Your task to perform on an android device: Open notification settings Image 0: 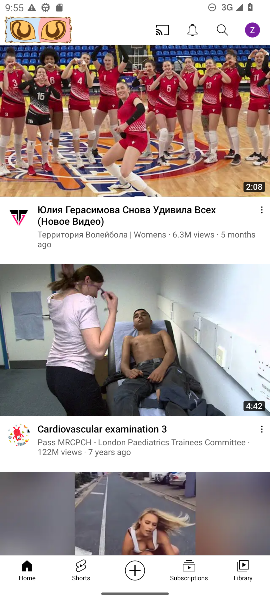
Step 0: press home button
Your task to perform on an android device: Open notification settings Image 1: 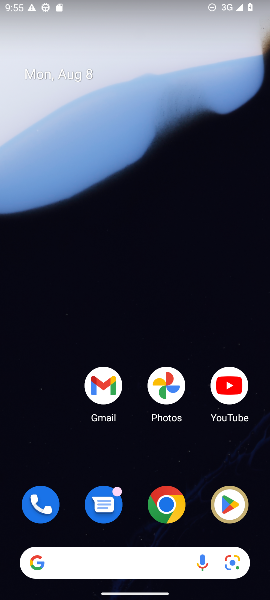
Step 1: drag from (125, 469) to (149, 139)
Your task to perform on an android device: Open notification settings Image 2: 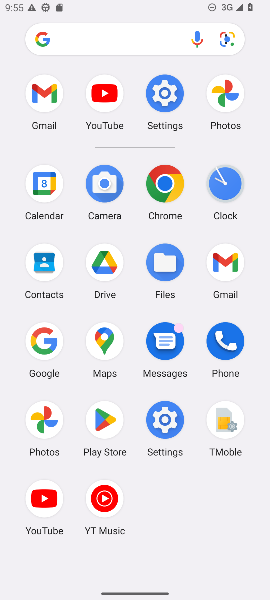
Step 2: click (171, 419)
Your task to perform on an android device: Open notification settings Image 3: 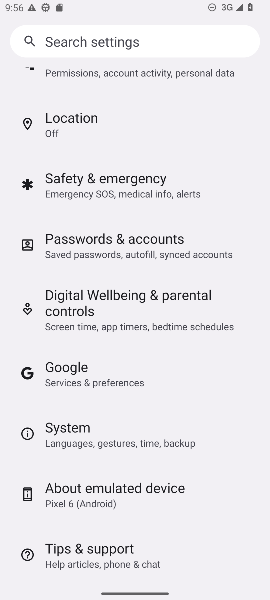
Step 3: drag from (175, 254) to (142, 499)
Your task to perform on an android device: Open notification settings Image 4: 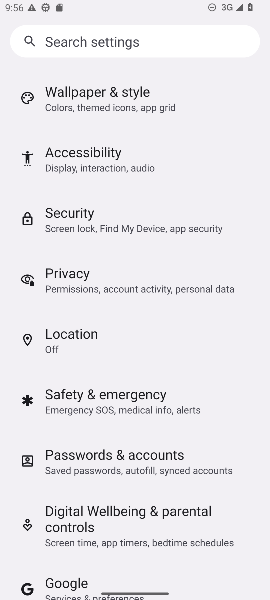
Step 4: drag from (127, 193) to (126, 486)
Your task to perform on an android device: Open notification settings Image 5: 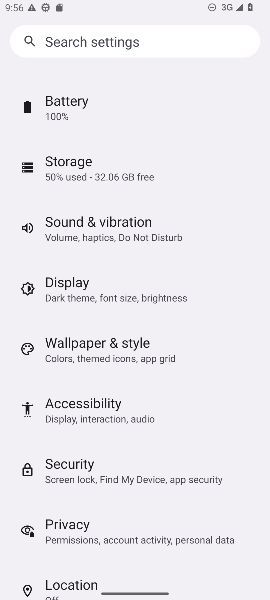
Step 5: drag from (109, 171) to (132, 559)
Your task to perform on an android device: Open notification settings Image 6: 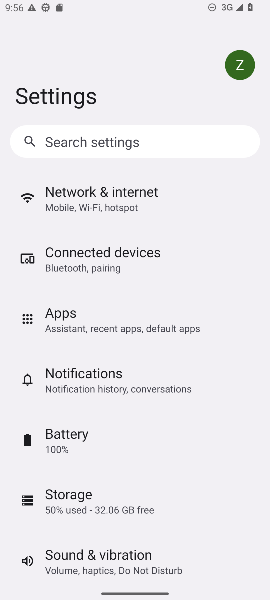
Step 6: click (133, 386)
Your task to perform on an android device: Open notification settings Image 7: 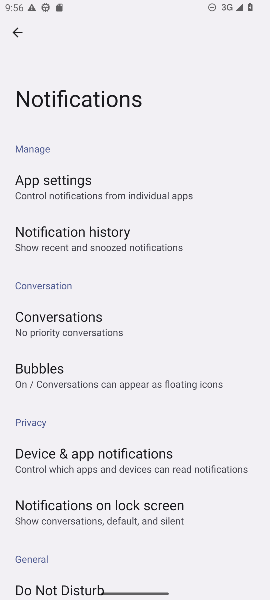
Step 7: task complete